Your task to perform on an android device: set an alarm Image 0: 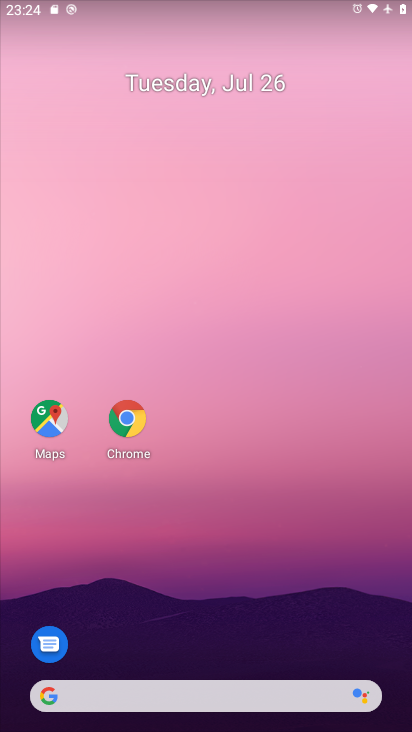
Step 0: drag from (190, 648) to (212, 211)
Your task to perform on an android device: set an alarm Image 1: 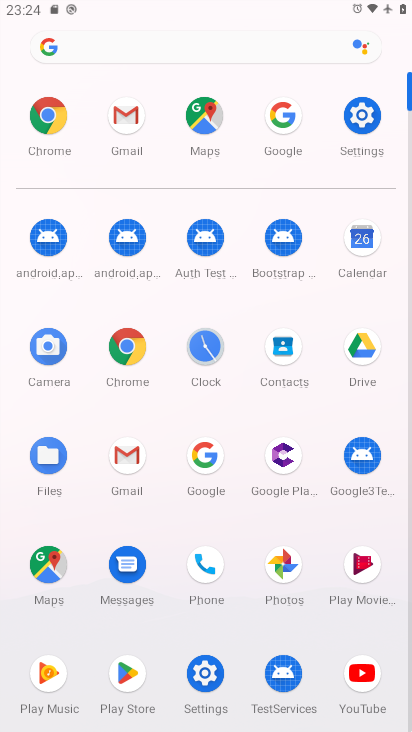
Step 1: click (204, 343)
Your task to perform on an android device: set an alarm Image 2: 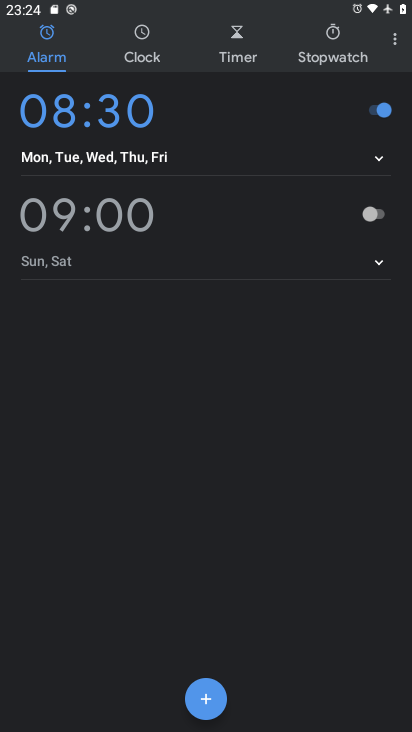
Step 2: click (384, 219)
Your task to perform on an android device: set an alarm Image 3: 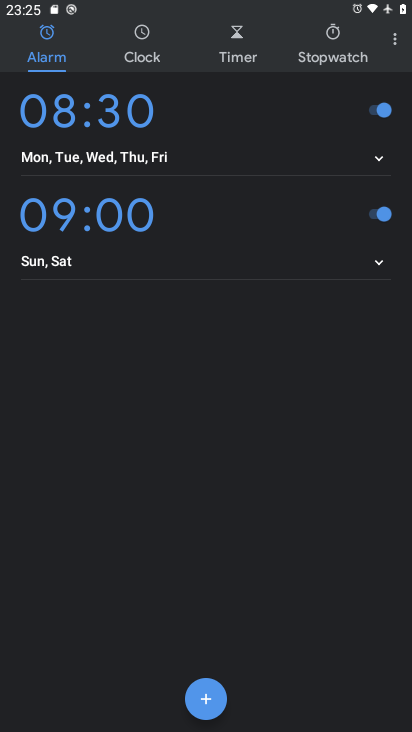
Step 3: task complete